Your task to perform on an android device: open app "eBay: The shopping marketplace" (install if not already installed) Image 0: 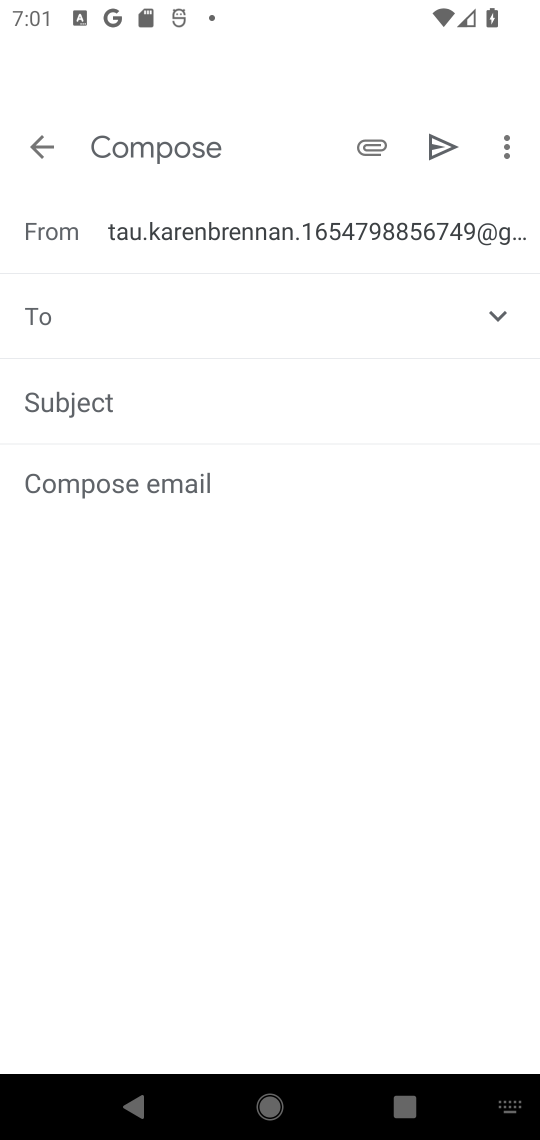
Step 0: press home button
Your task to perform on an android device: open app "eBay: The shopping marketplace" (install if not already installed) Image 1: 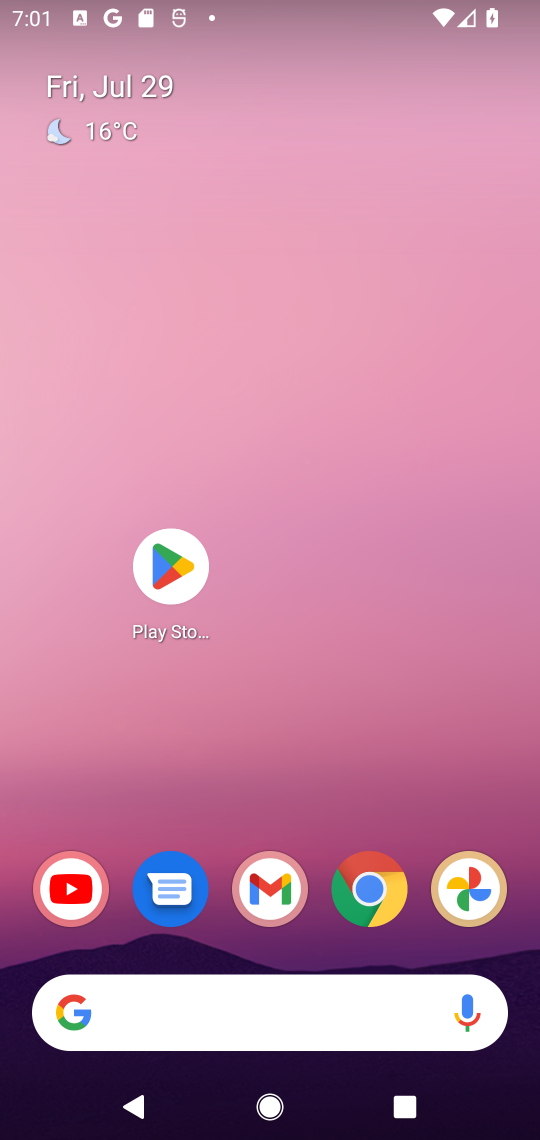
Step 1: click (165, 565)
Your task to perform on an android device: open app "eBay: The shopping marketplace" (install if not already installed) Image 2: 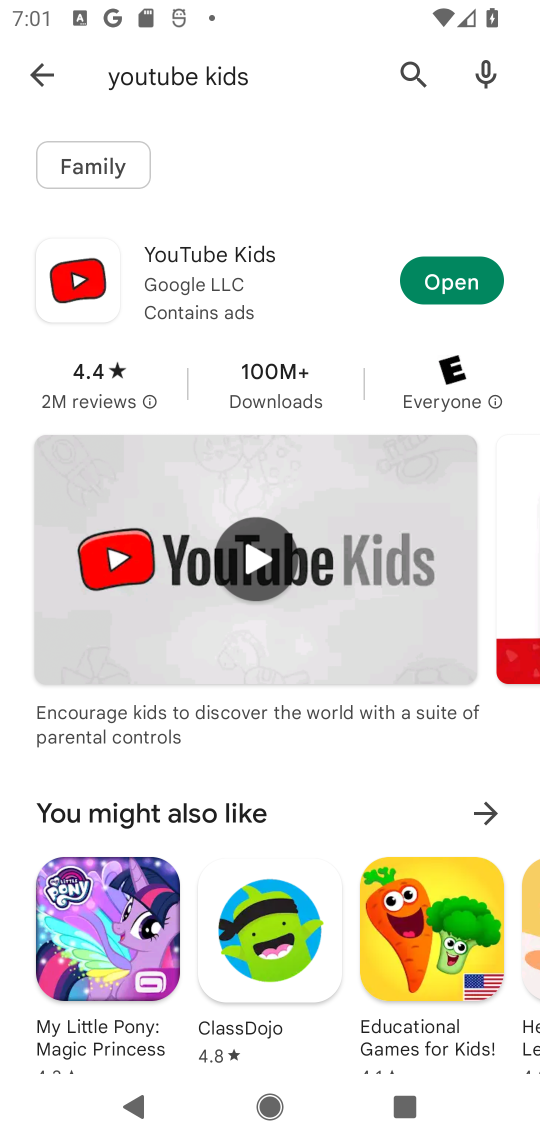
Step 2: click (413, 67)
Your task to perform on an android device: open app "eBay: The shopping marketplace" (install if not already installed) Image 3: 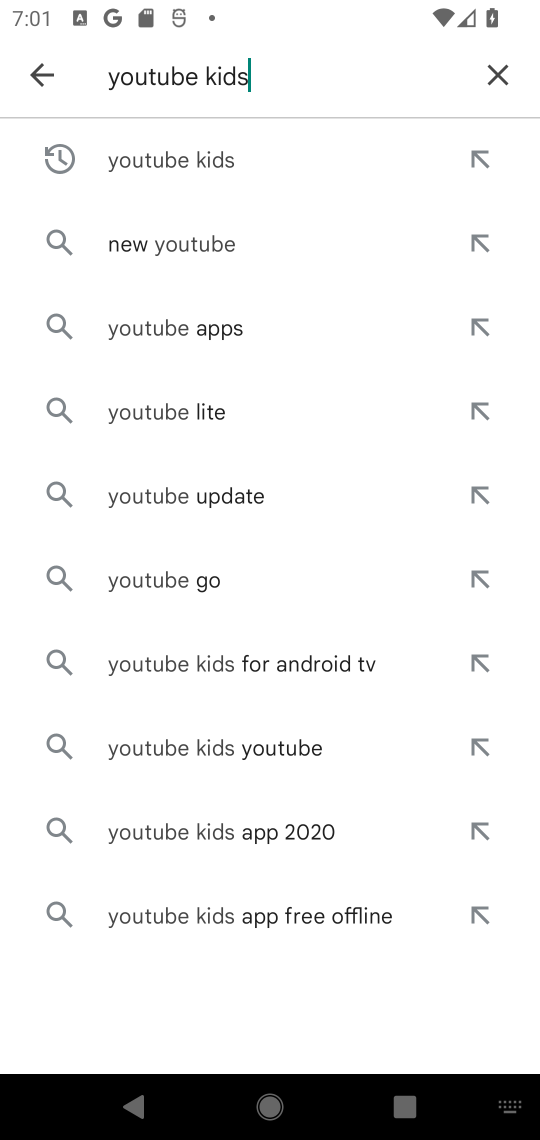
Step 3: click (495, 68)
Your task to perform on an android device: open app "eBay: The shopping marketplace" (install if not already installed) Image 4: 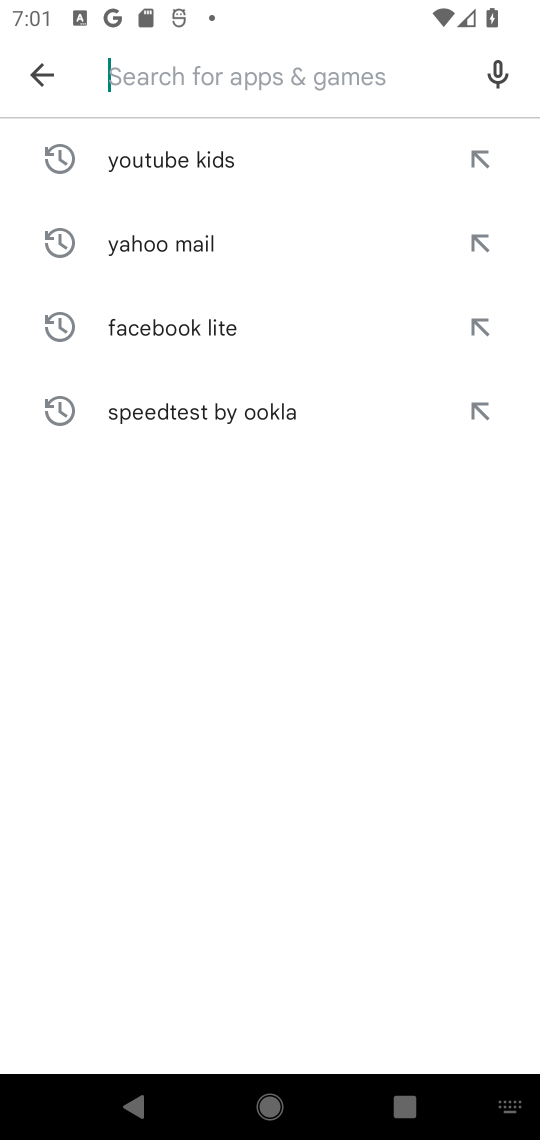
Step 4: type "eBay: The shopping marketplace"
Your task to perform on an android device: open app "eBay: The shopping marketplace" (install if not already installed) Image 5: 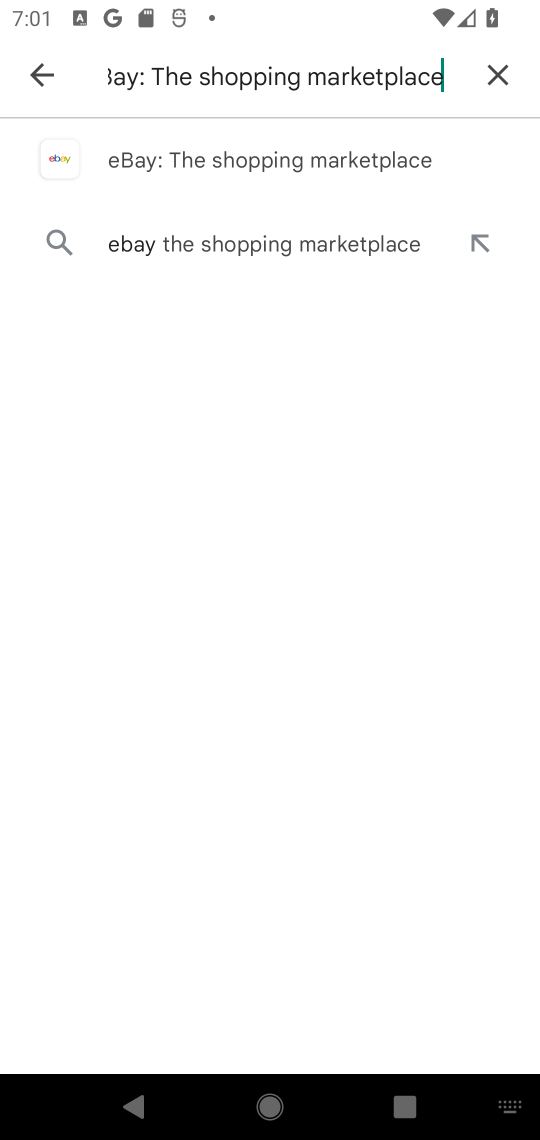
Step 5: click (278, 155)
Your task to perform on an android device: open app "eBay: The shopping marketplace" (install if not already installed) Image 6: 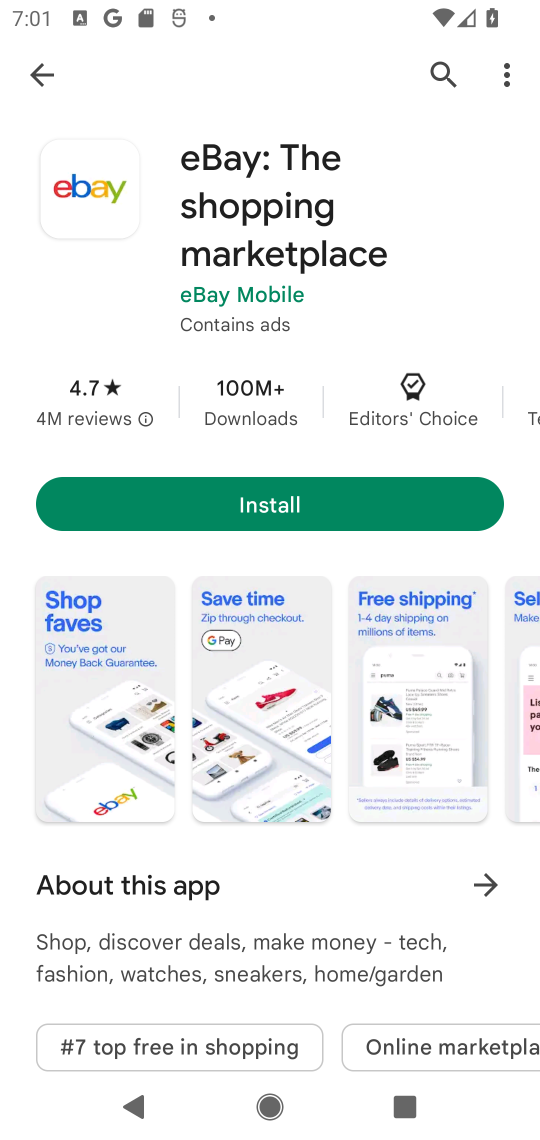
Step 6: click (275, 501)
Your task to perform on an android device: open app "eBay: The shopping marketplace" (install if not already installed) Image 7: 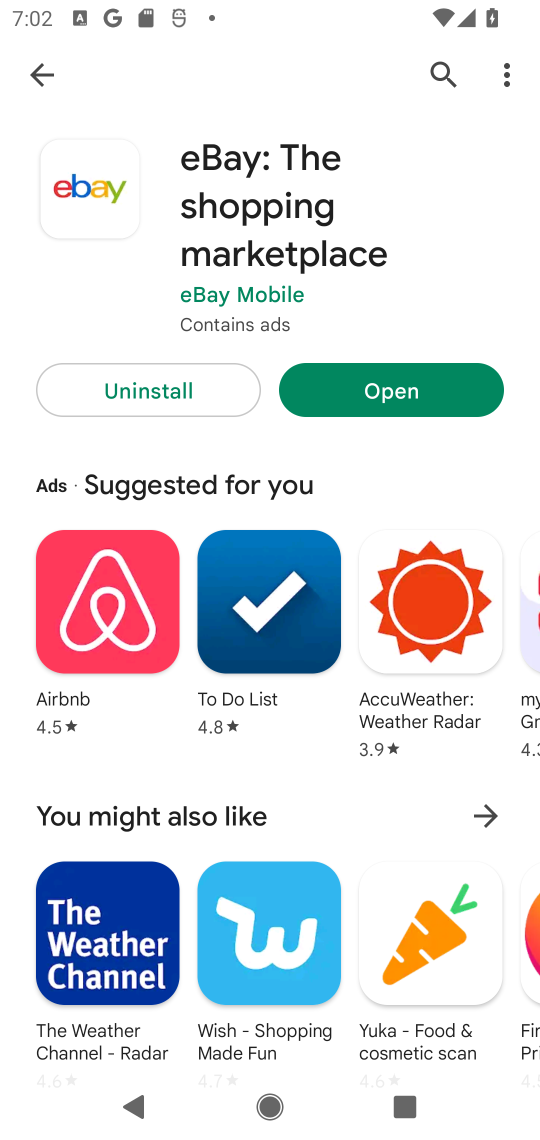
Step 7: click (380, 394)
Your task to perform on an android device: open app "eBay: The shopping marketplace" (install if not already installed) Image 8: 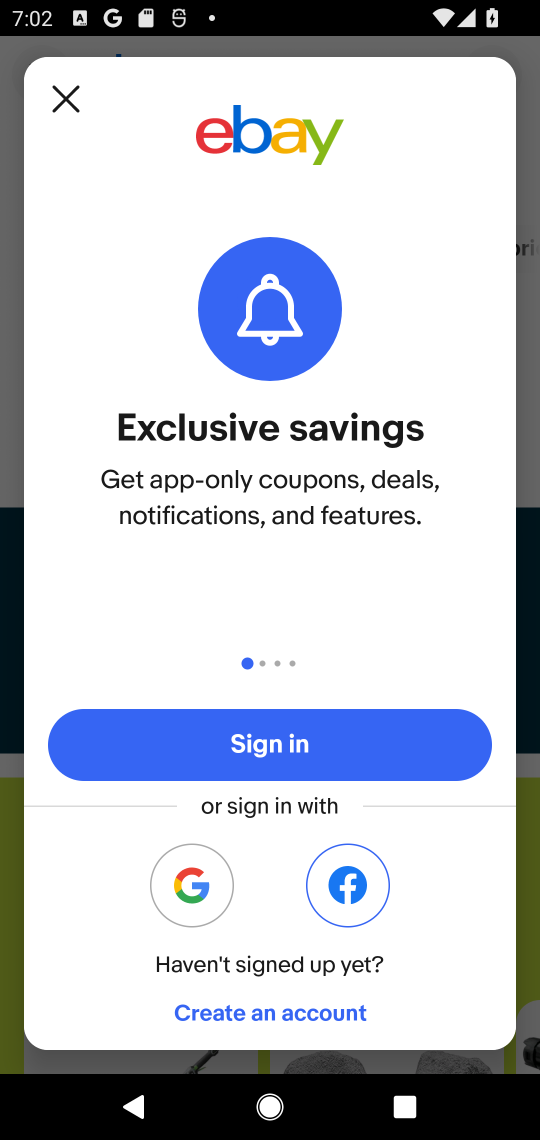
Step 8: task complete